Your task to perform on an android device: see tabs open on other devices in the chrome app Image 0: 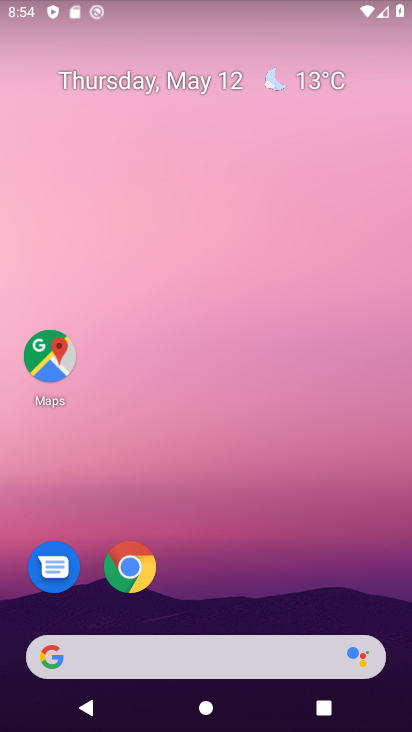
Step 0: click (256, 51)
Your task to perform on an android device: see tabs open on other devices in the chrome app Image 1: 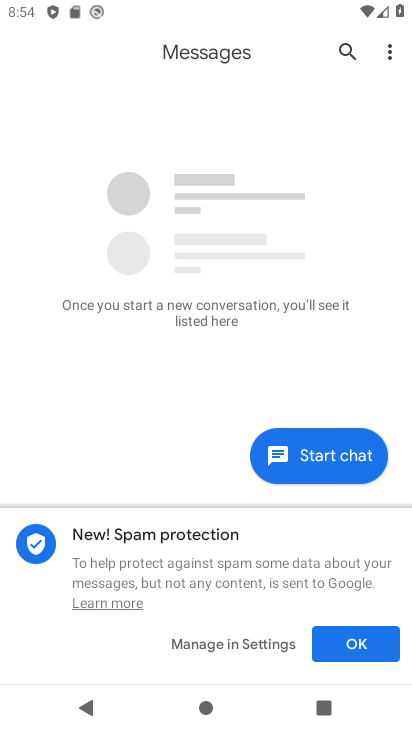
Step 1: press home button
Your task to perform on an android device: see tabs open on other devices in the chrome app Image 2: 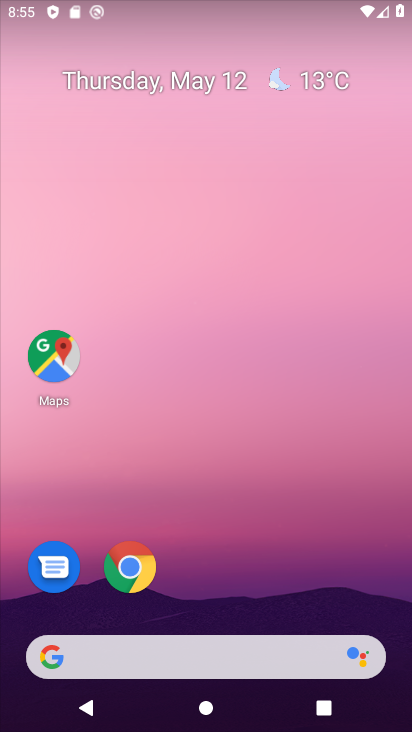
Step 2: click (128, 566)
Your task to perform on an android device: see tabs open on other devices in the chrome app Image 3: 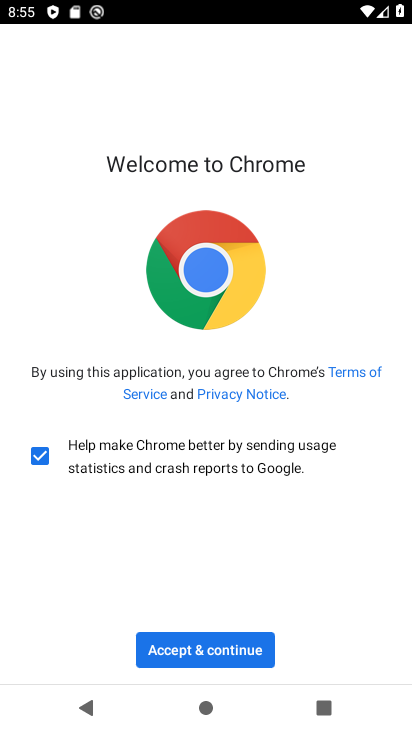
Step 3: click (206, 651)
Your task to perform on an android device: see tabs open on other devices in the chrome app Image 4: 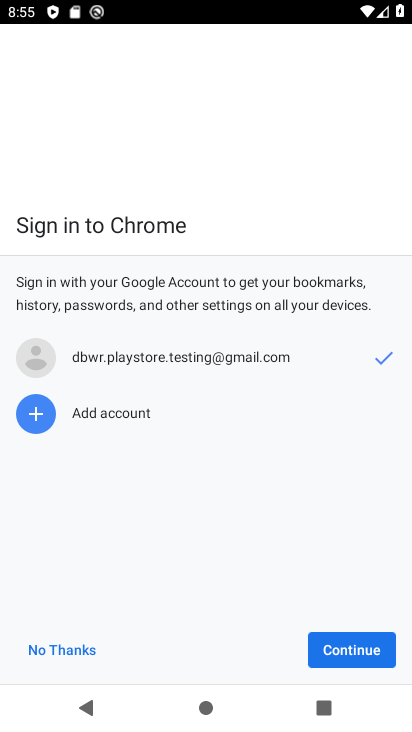
Step 4: click (332, 653)
Your task to perform on an android device: see tabs open on other devices in the chrome app Image 5: 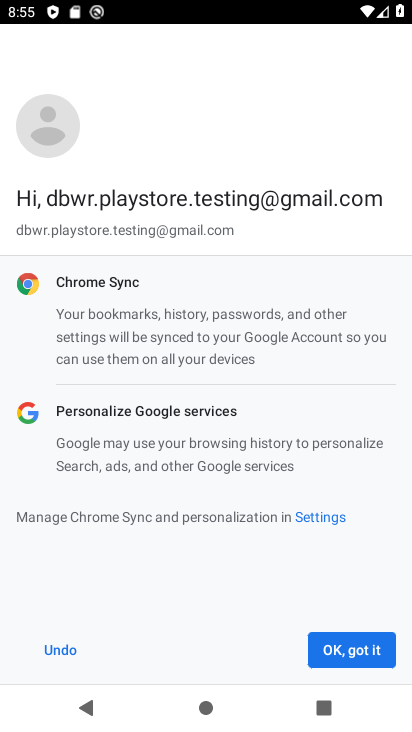
Step 5: click (343, 647)
Your task to perform on an android device: see tabs open on other devices in the chrome app Image 6: 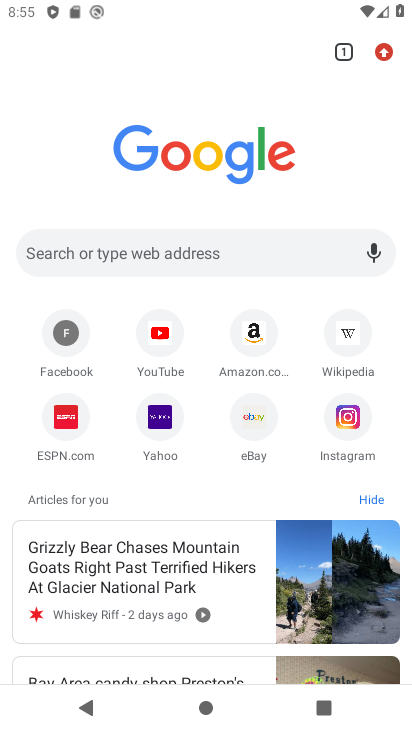
Step 6: click (382, 49)
Your task to perform on an android device: see tabs open on other devices in the chrome app Image 7: 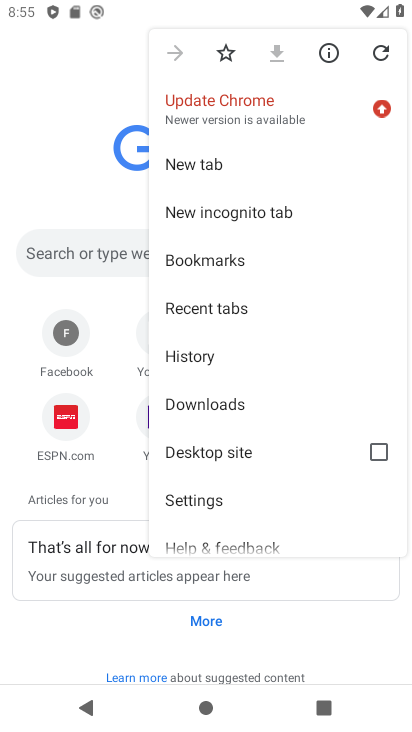
Step 7: click (253, 301)
Your task to perform on an android device: see tabs open on other devices in the chrome app Image 8: 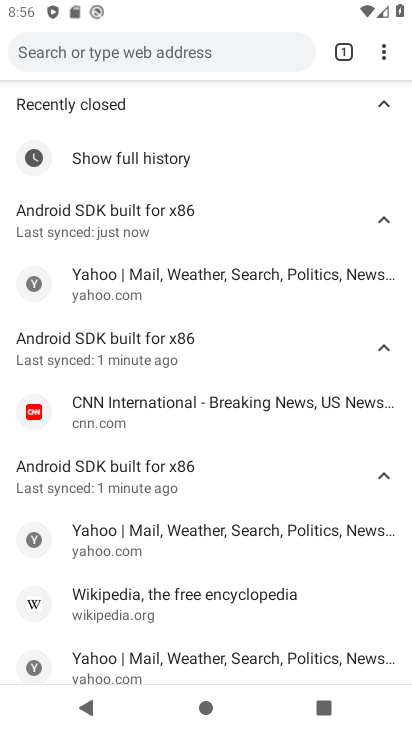
Step 8: task complete